Your task to perform on an android device: toggle sleep mode Image 0: 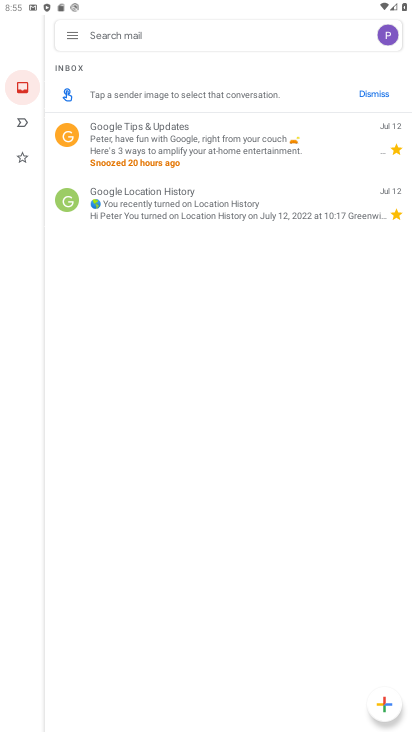
Step 0: press home button
Your task to perform on an android device: toggle sleep mode Image 1: 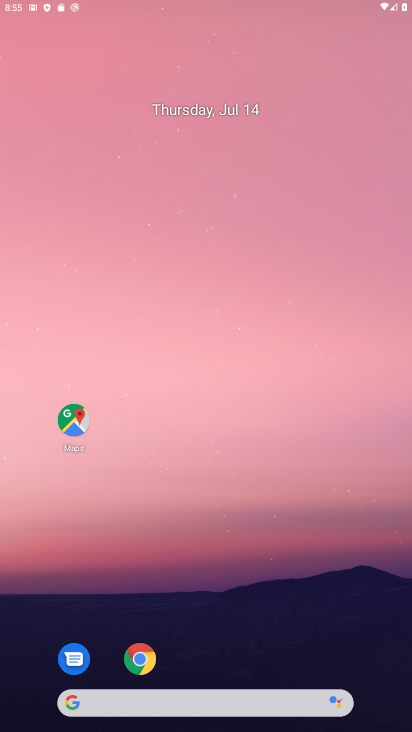
Step 1: drag from (251, 626) to (226, 190)
Your task to perform on an android device: toggle sleep mode Image 2: 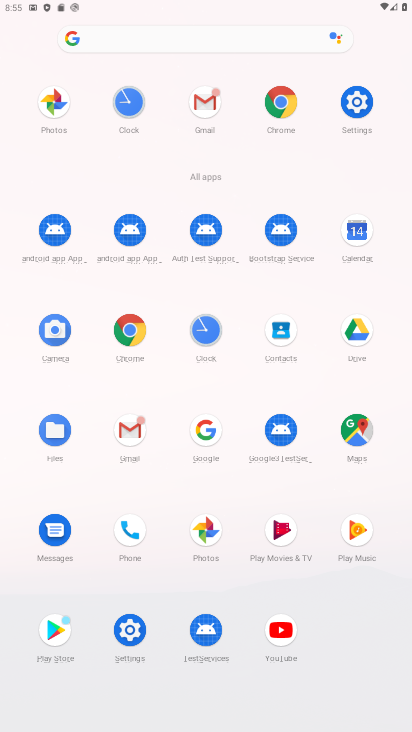
Step 2: click (356, 113)
Your task to perform on an android device: toggle sleep mode Image 3: 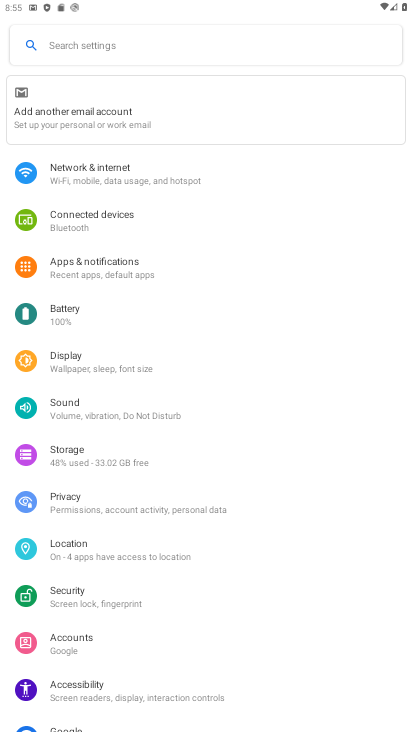
Step 3: click (135, 368)
Your task to perform on an android device: toggle sleep mode Image 4: 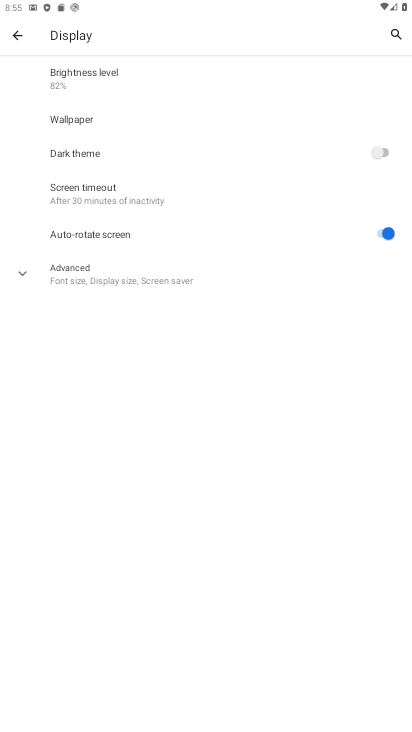
Step 4: click (51, 272)
Your task to perform on an android device: toggle sleep mode Image 5: 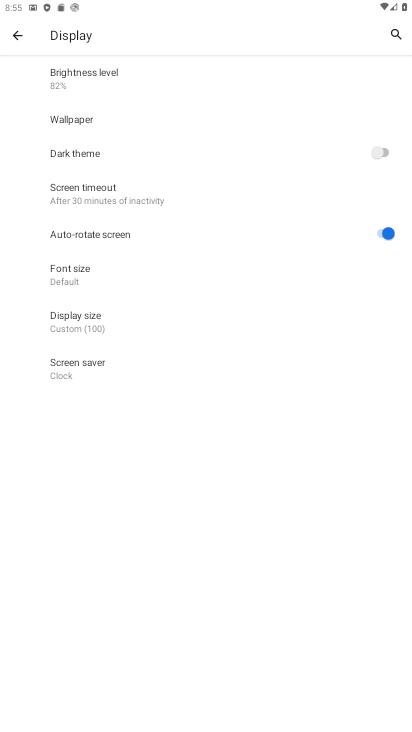
Step 5: task complete